Your task to perform on an android device: turn off translation in the chrome app Image 0: 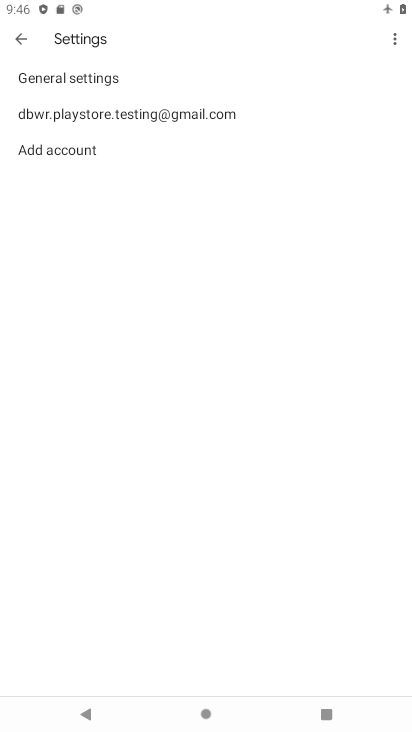
Step 0: click (127, 113)
Your task to perform on an android device: turn off translation in the chrome app Image 1: 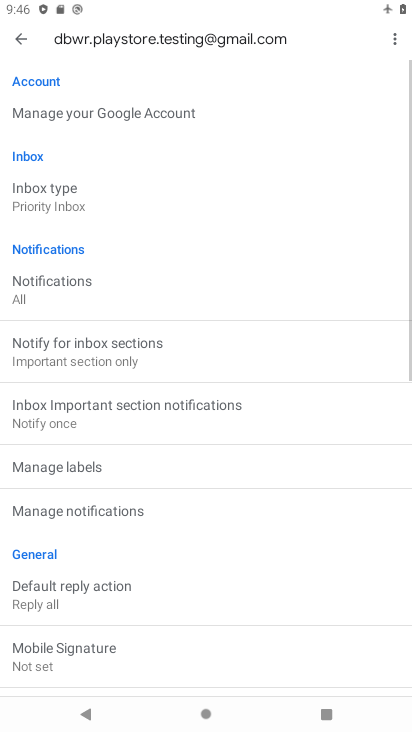
Step 1: drag from (192, 616) to (332, 143)
Your task to perform on an android device: turn off translation in the chrome app Image 2: 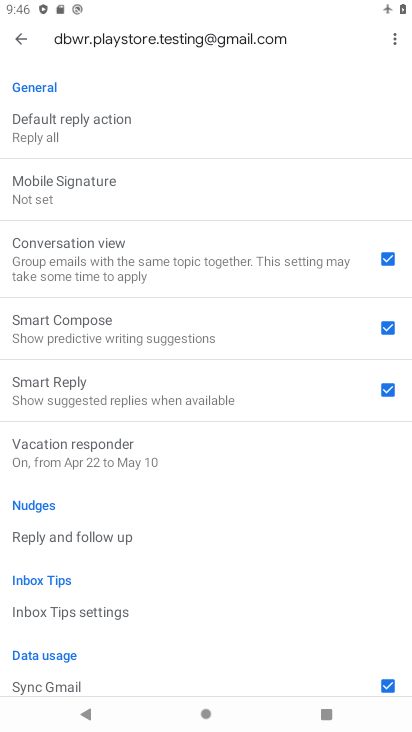
Step 2: drag from (222, 597) to (315, 51)
Your task to perform on an android device: turn off translation in the chrome app Image 3: 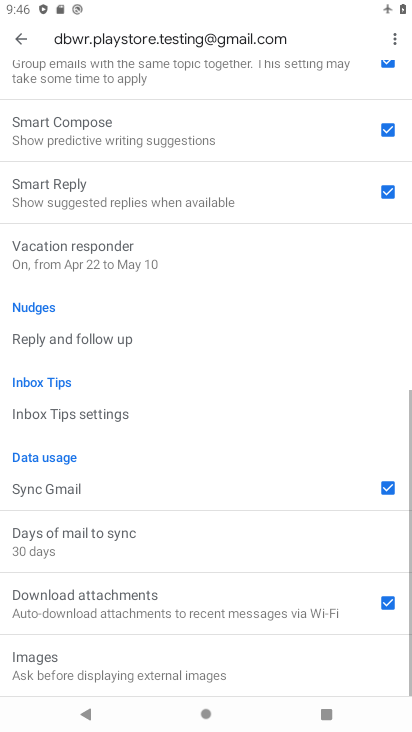
Step 3: drag from (234, 496) to (211, 146)
Your task to perform on an android device: turn off translation in the chrome app Image 4: 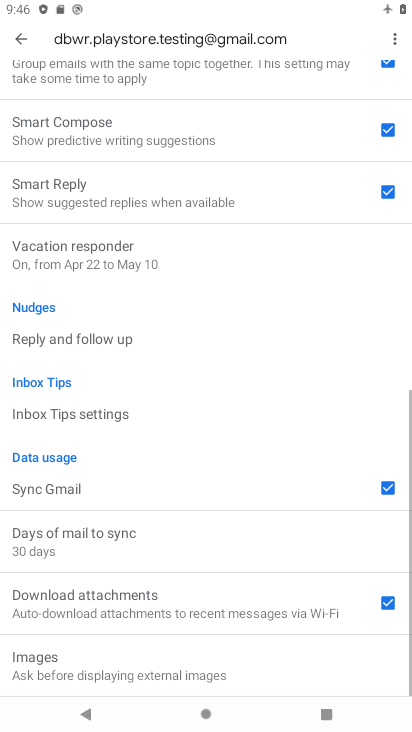
Step 4: drag from (183, 284) to (190, 674)
Your task to perform on an android device: turn off translation in the chrome app Image 5: 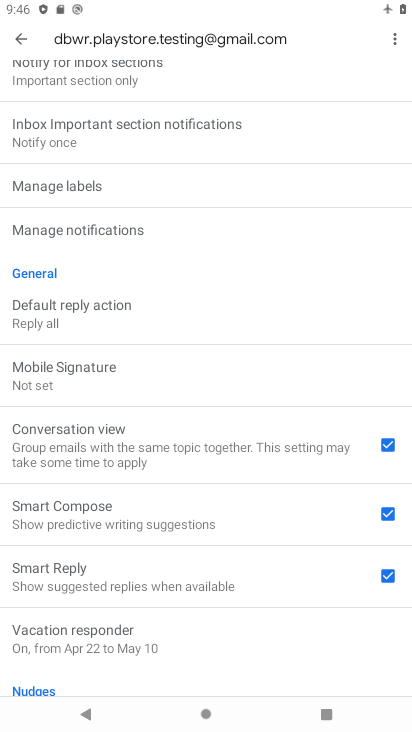
Step 5: drag from (231, 203) to (171, 722)
Your task to perform on an android device: turn off translation in the chrome app Image 6: 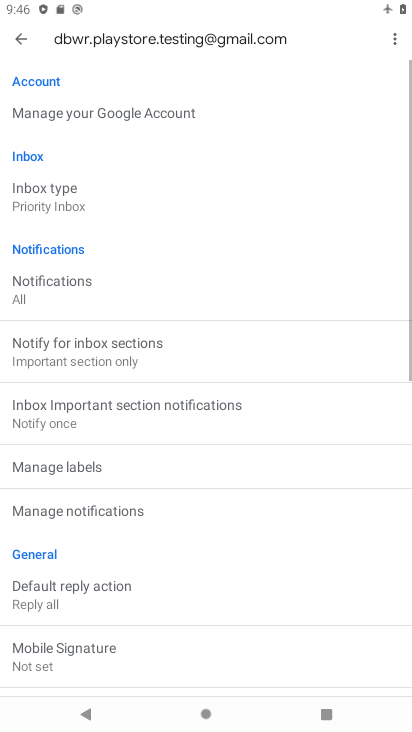
Step 6: drag from (226, 185) to (158, 722)
Your task to perform on an android device: turn off translation in the chrome app Image 7: 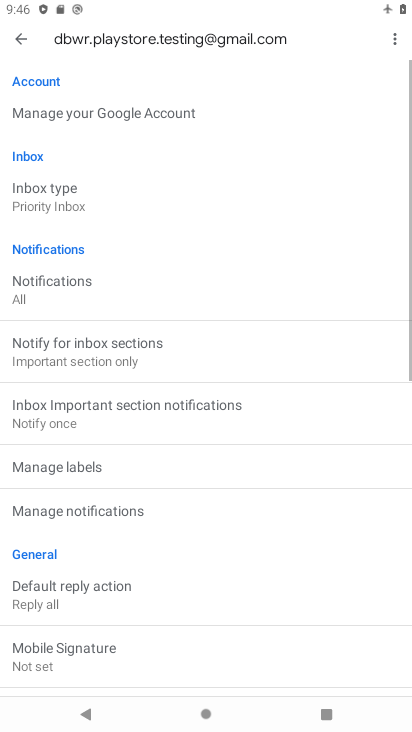
Step 7: drag from (157, 221) to (61, 650)
Your task to perform on an android device: turn off translation in the chrome app Image 8: 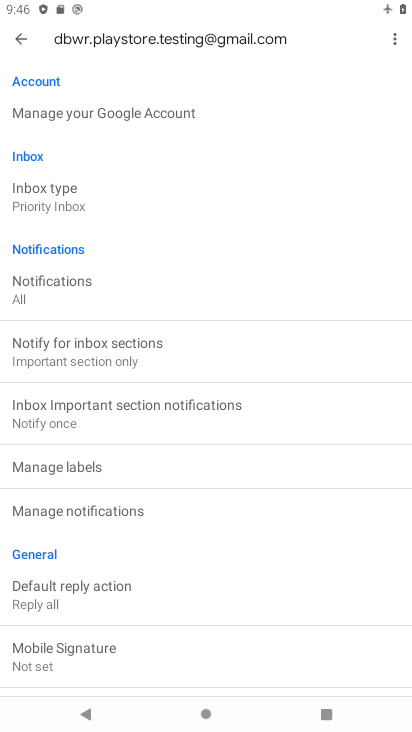
Step 8: click (18, 53)
Your task to perform on an android device: turn off translation in the chrome app Image 9: 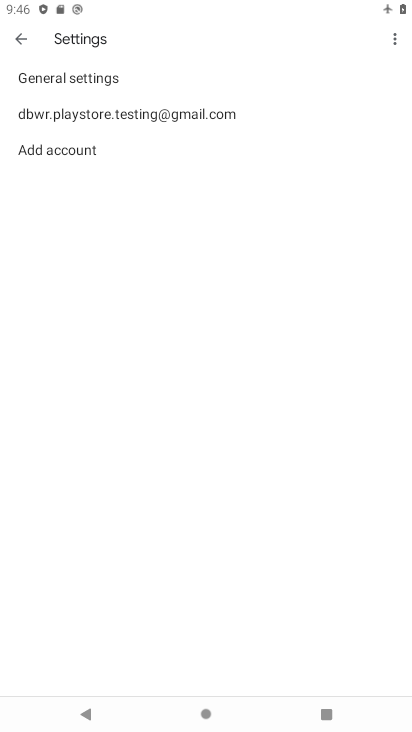
Step 9: press back button
Your task to perform on an android device: turn off translation in the chrome app Image 10: 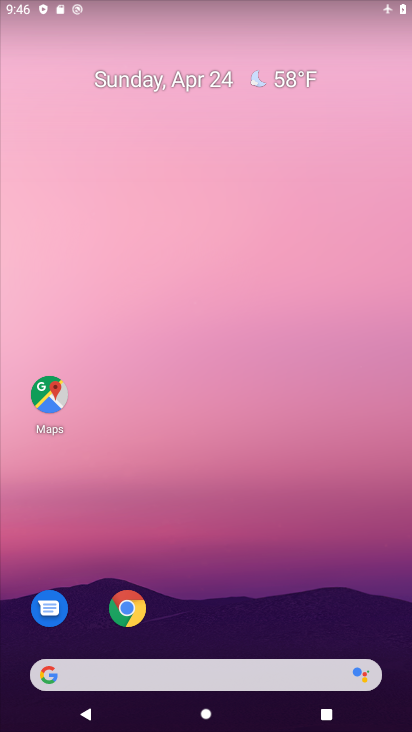
Step 10: drag from (337, 374) to (389, 93)
Your task to perform on an android device: turn off translation in the chrome app Image 11: 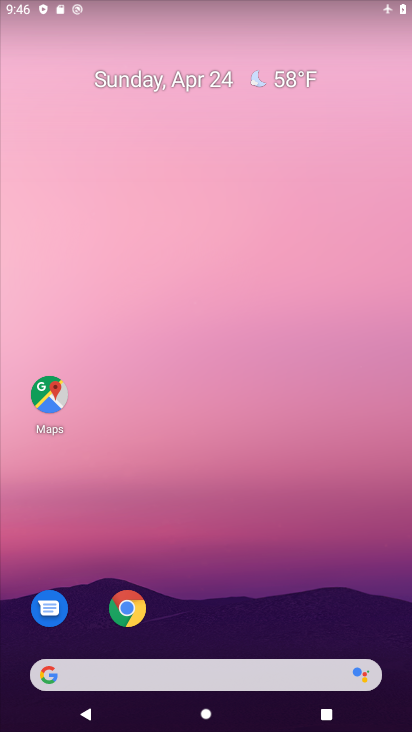
Step 11: drag from (305, 477) to (372, 35)
Your task to perform on an android device: turn off translation in the chrome app Image 12: 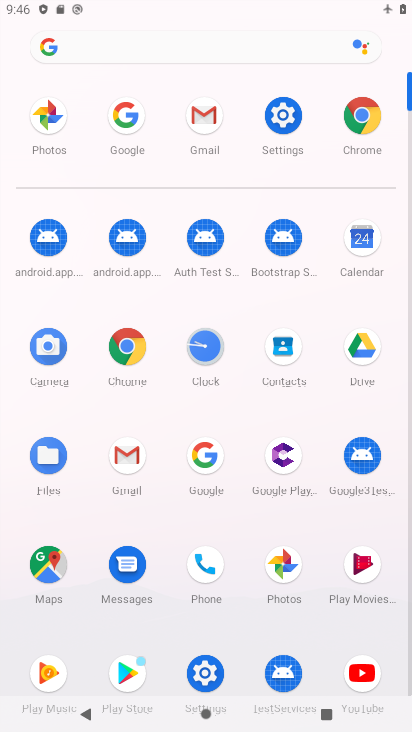
Step 12: click (365, 131)
Your task to perform on an android device: turn off translation in the chrome app Image 13: 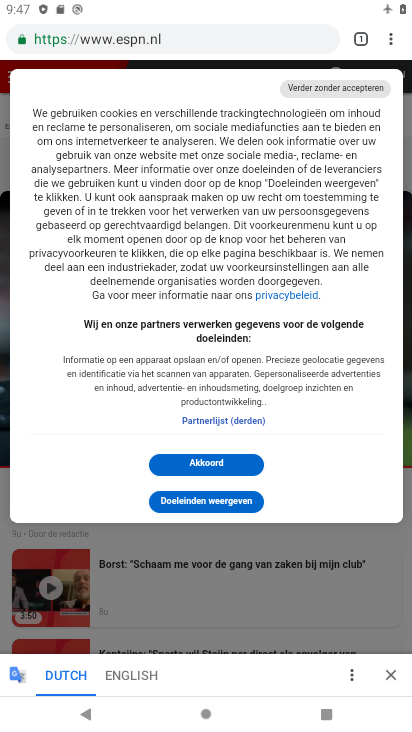
Step 13: drag from (395, 38) to (240, 422)
Your task to perform on an android device: turn off translation in the chrome app Image 14: 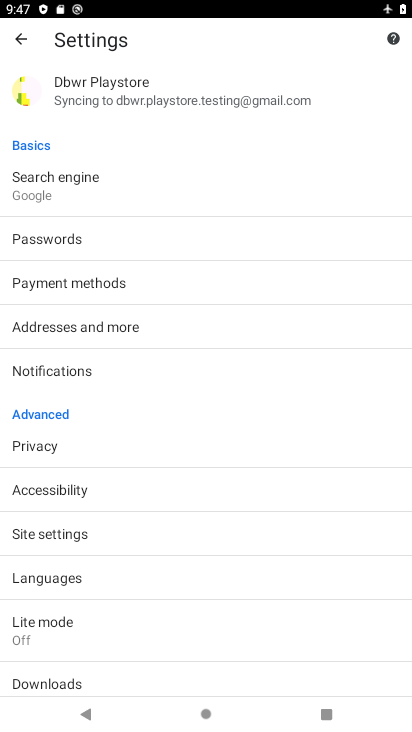
Step 14: click (102, 578)
Your task to perform on an android device: turn off translation in the chrome app Image 15: 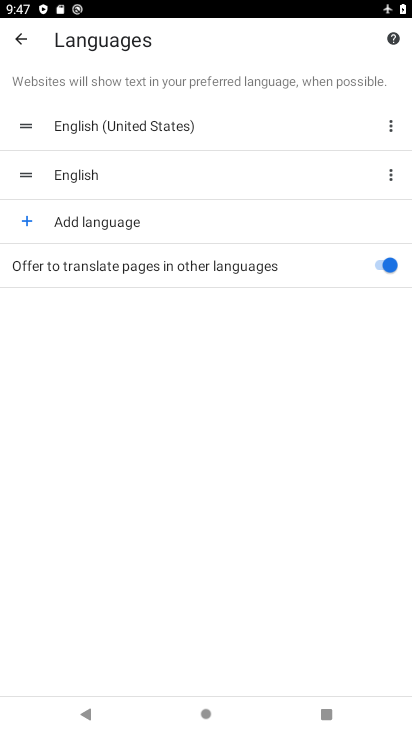
Step 15: click (396, 268)
Your task to perform on an android device: turn off translation in the chrome app Image 16: 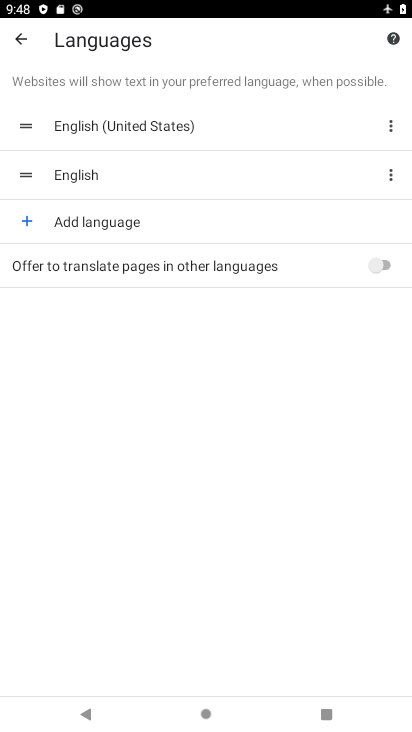
Step 16: task complete